Your task to perform on an android device: Search for the best rated book on Goodreads. Image 0: 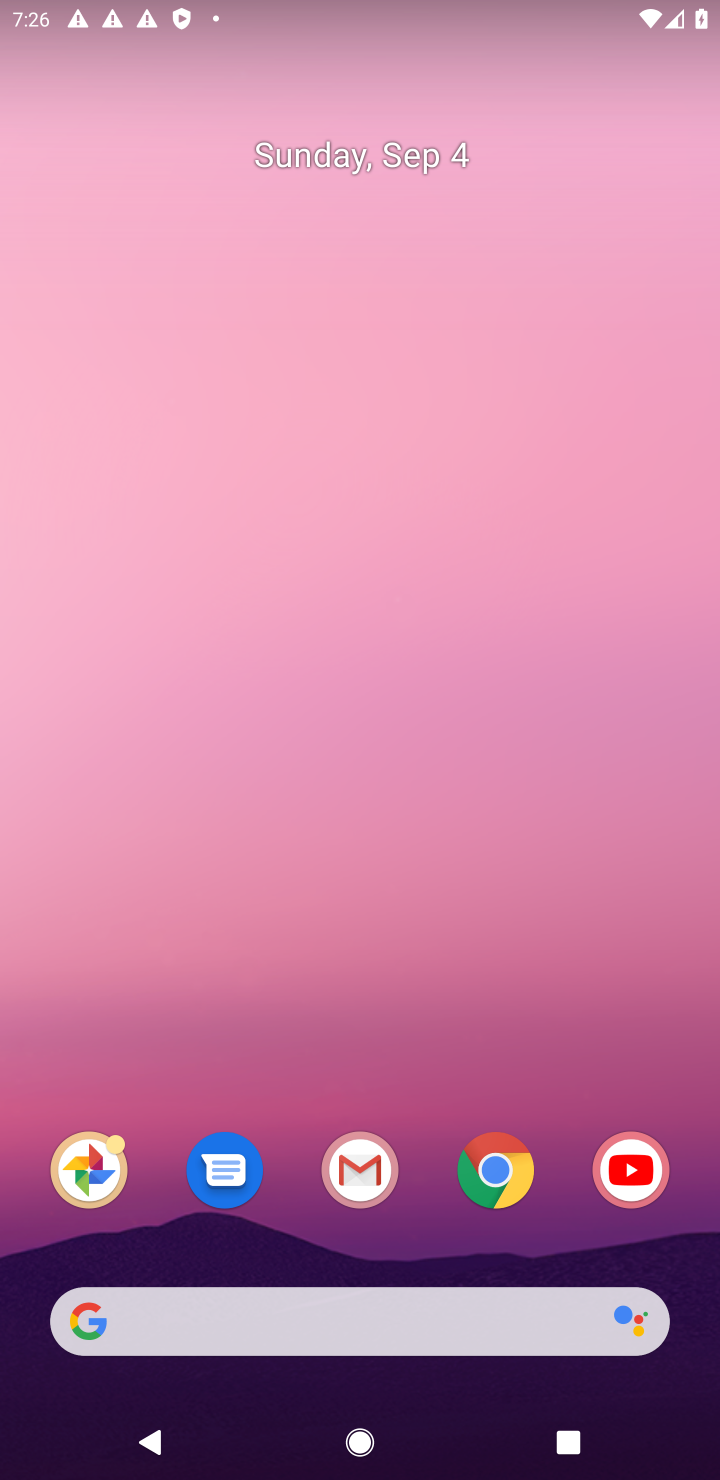
Step 0: drag from (377, 960) to (76, 51)
Your task to perform on an android device: Search for the best rated book on Goodreads. Image 1: 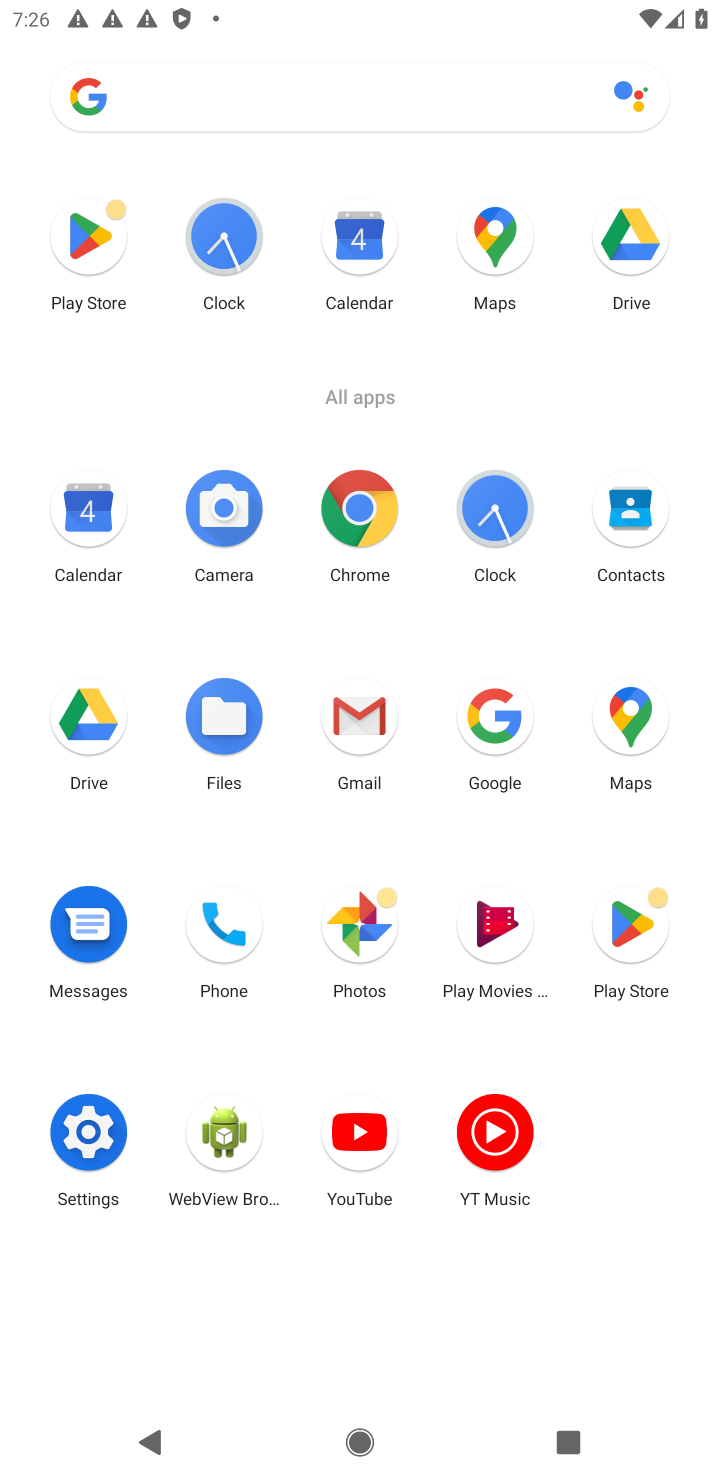
Step 1: click (350, 542)
Your task to perform on an android device: Search for the best rated book on Goodreads. Image 2: 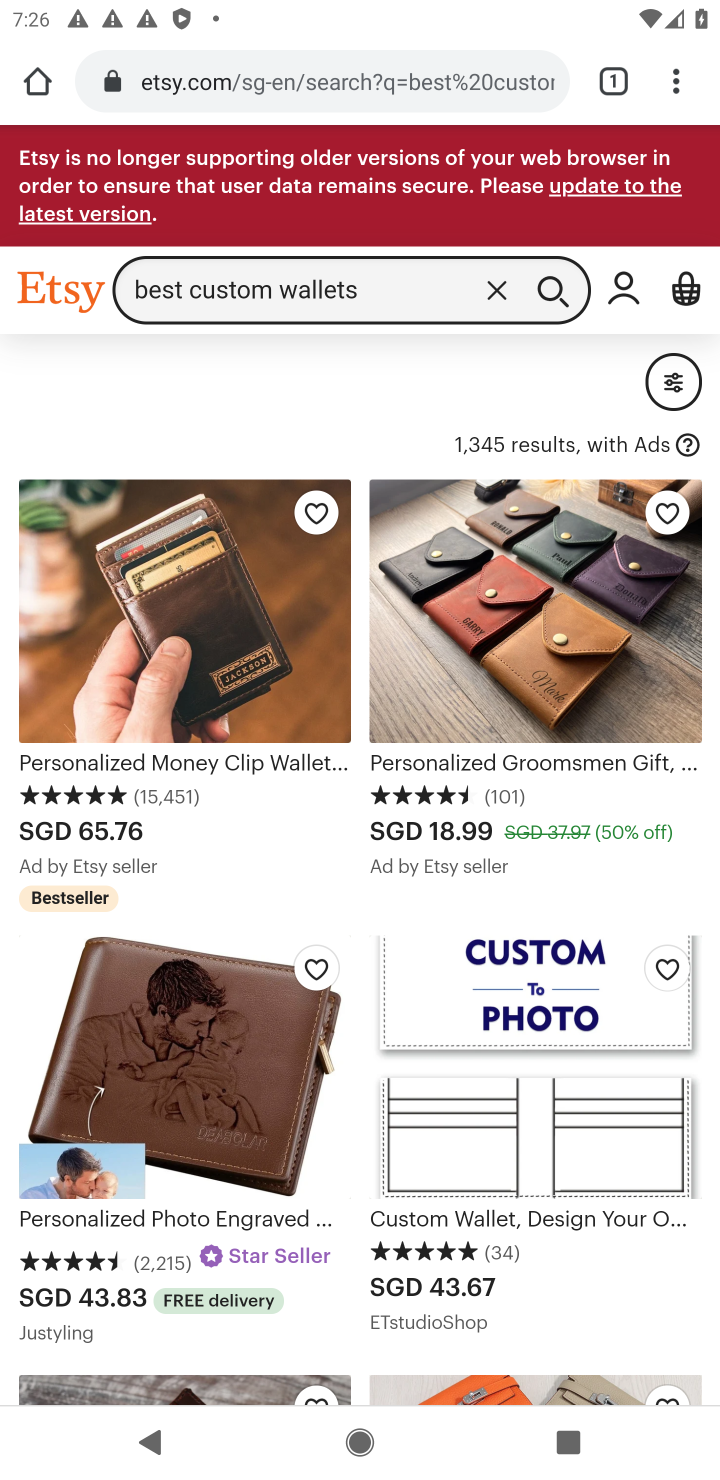
Step 2: click (317, 76)
Your task to perform on an android device: Search for the best rated book on Goodreads. Image 3: 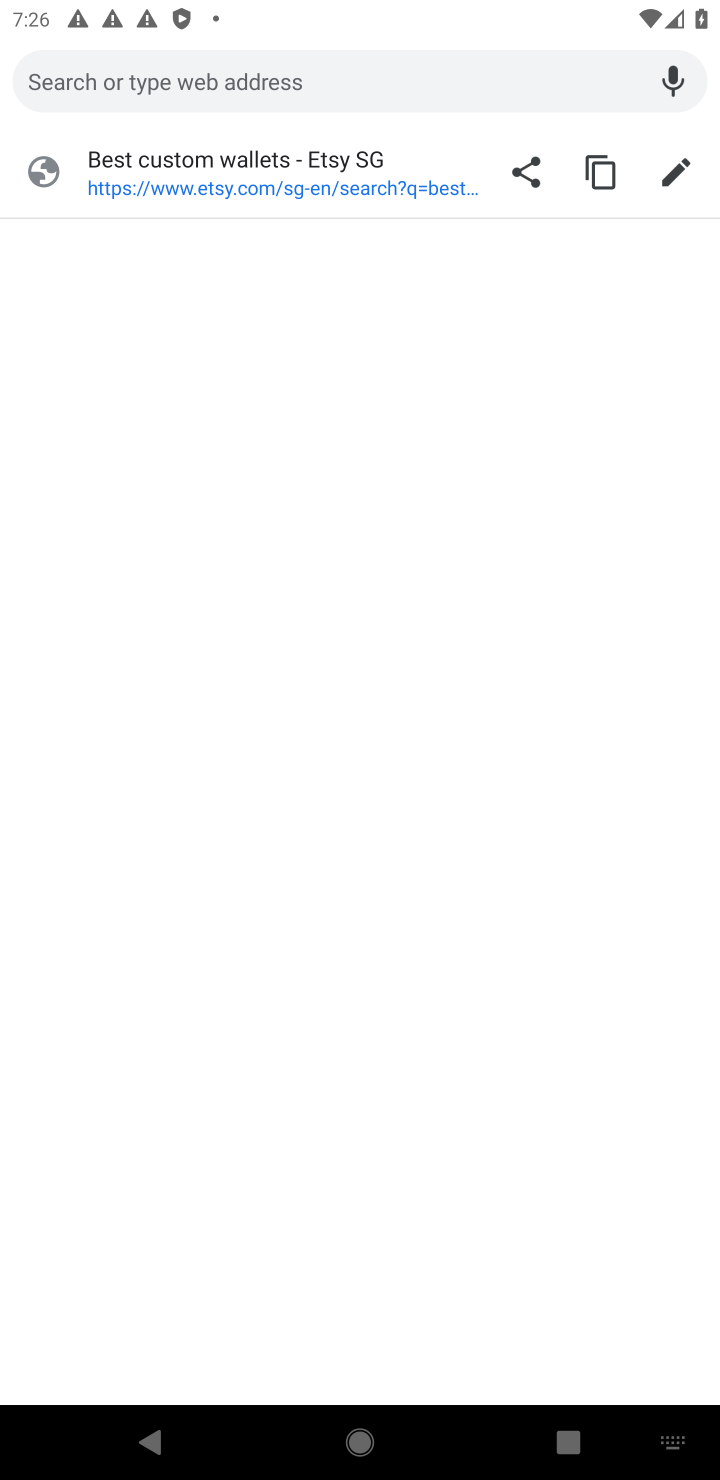
Step 3: type "goodreads"
Your task to perform on an android device: Search for the best rated book on Goodreads. Image 4: 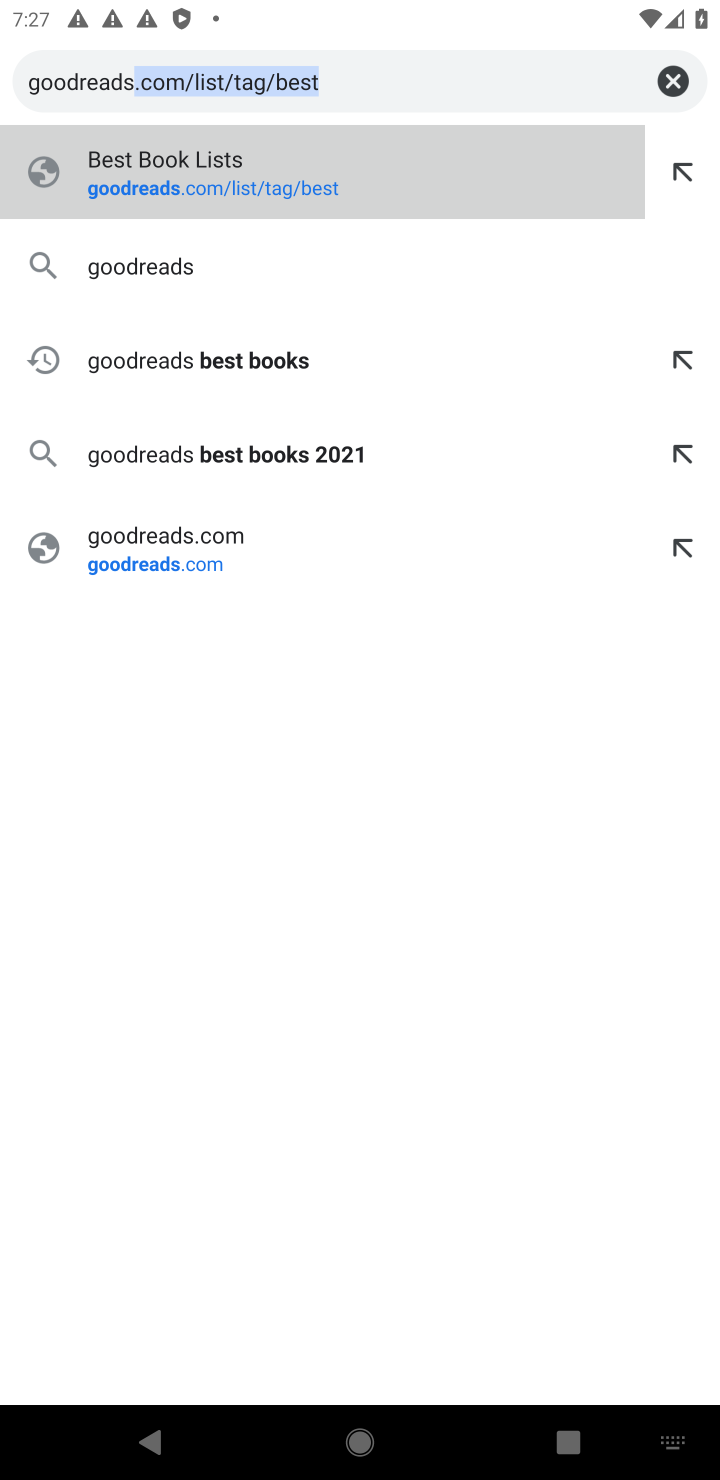
Step 4: click (189, 283)
Your task to perform on an android device: Search for the best rated book on Goodreads. Image 5: 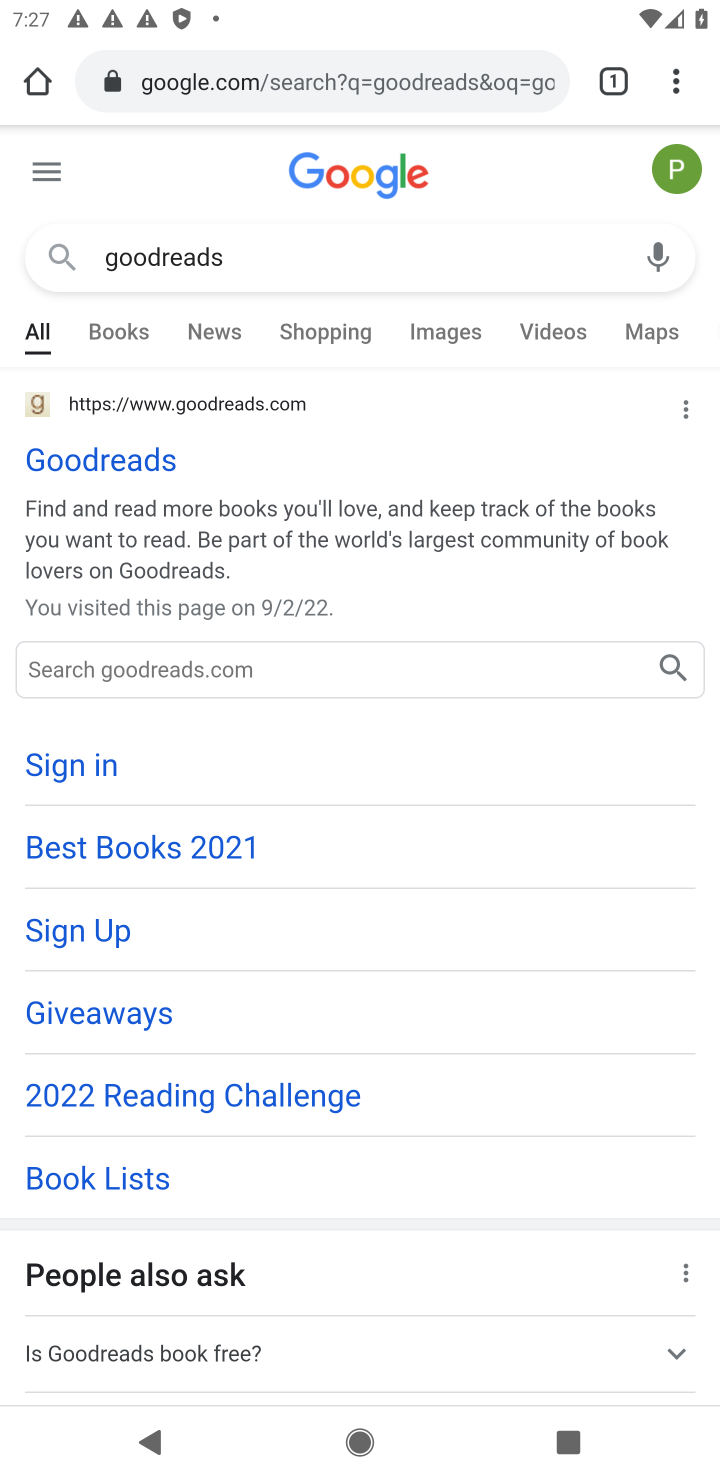
Step 5: click (131, 465)
Your task to perform on an android device: Search for the best rated book on Goodreads. Image 6: 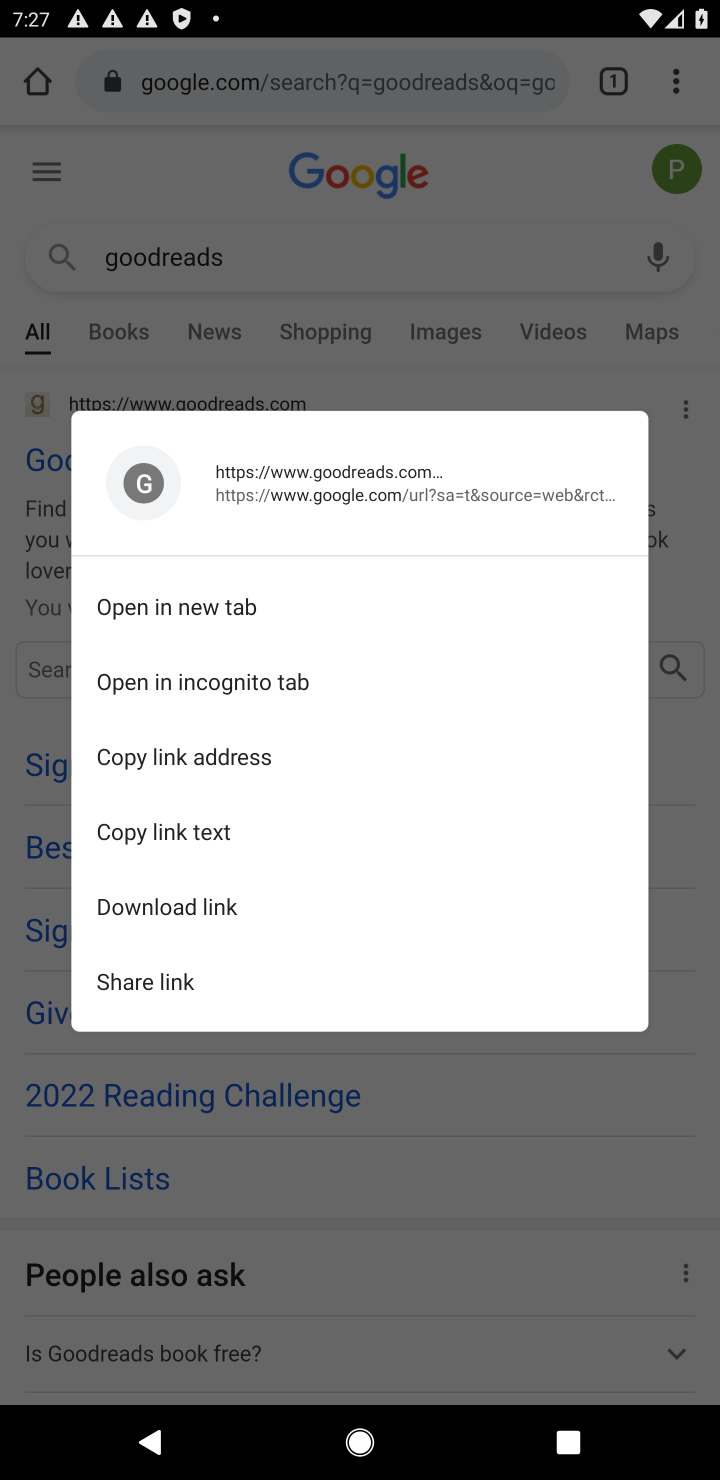
Step 6: click (51, 464)
Your task to perform on an android device: Search for the best rated book on Goodreads. Image 7: 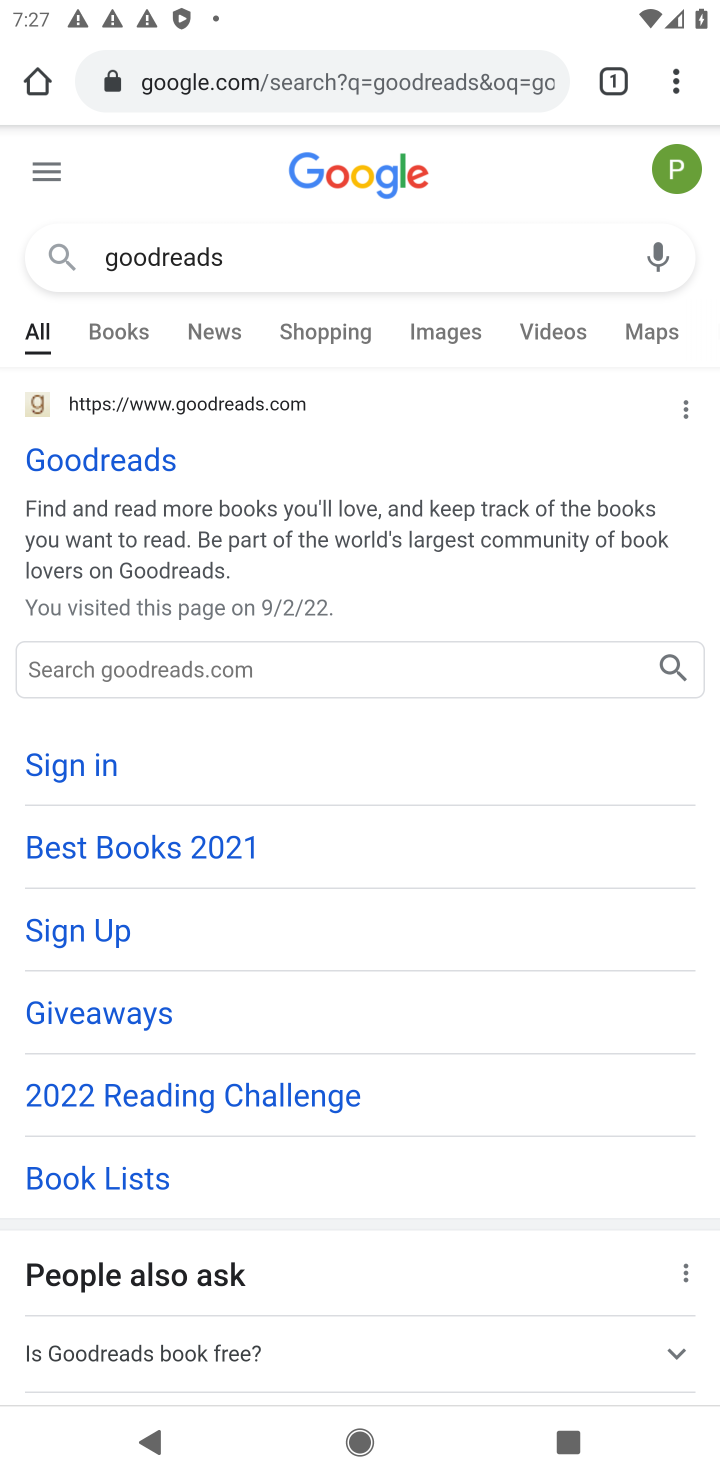
Step 7: click (51, 464)
Your task to perform on an android device: Search for the best rated book on Goodreads. Image 8: 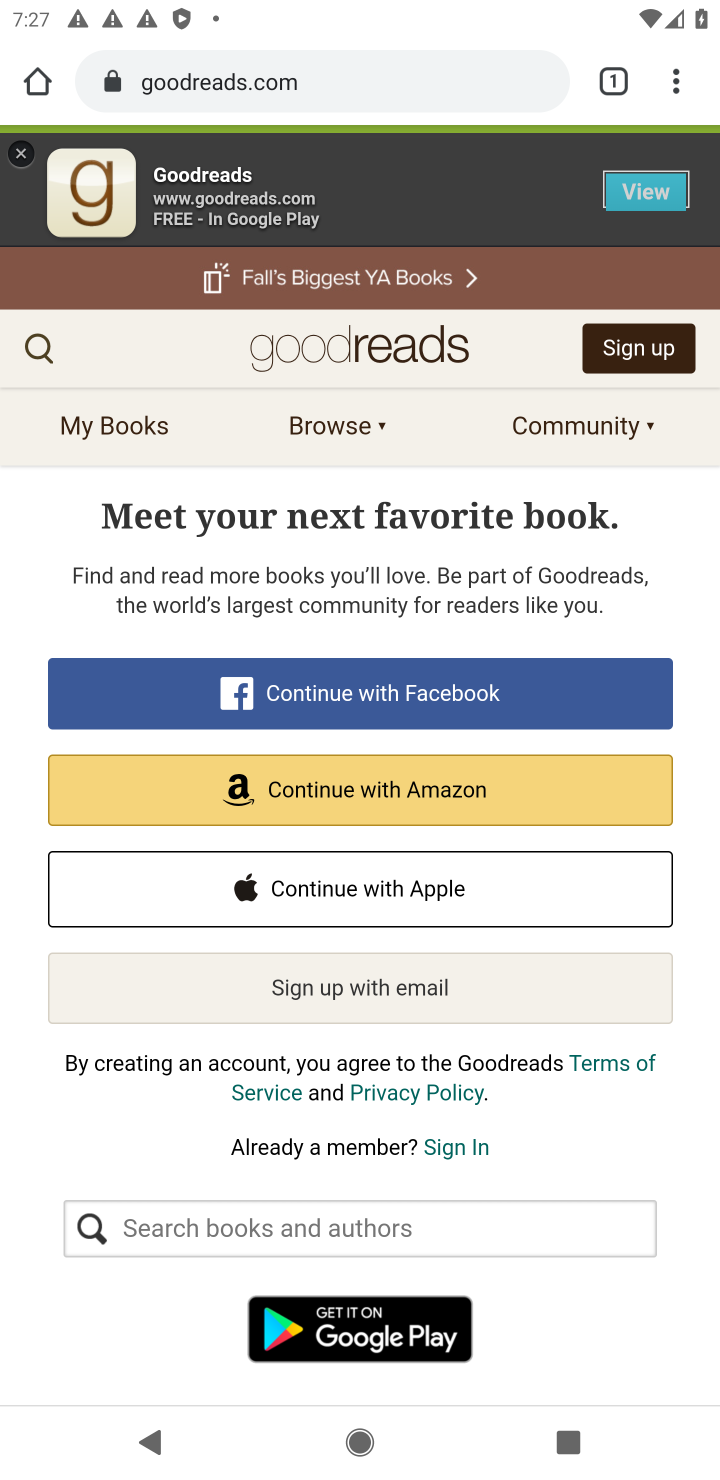
Step 8: click (34, 360)
Your task to perform on an android device: Search for the best rated book on Goodreads. Image 9: 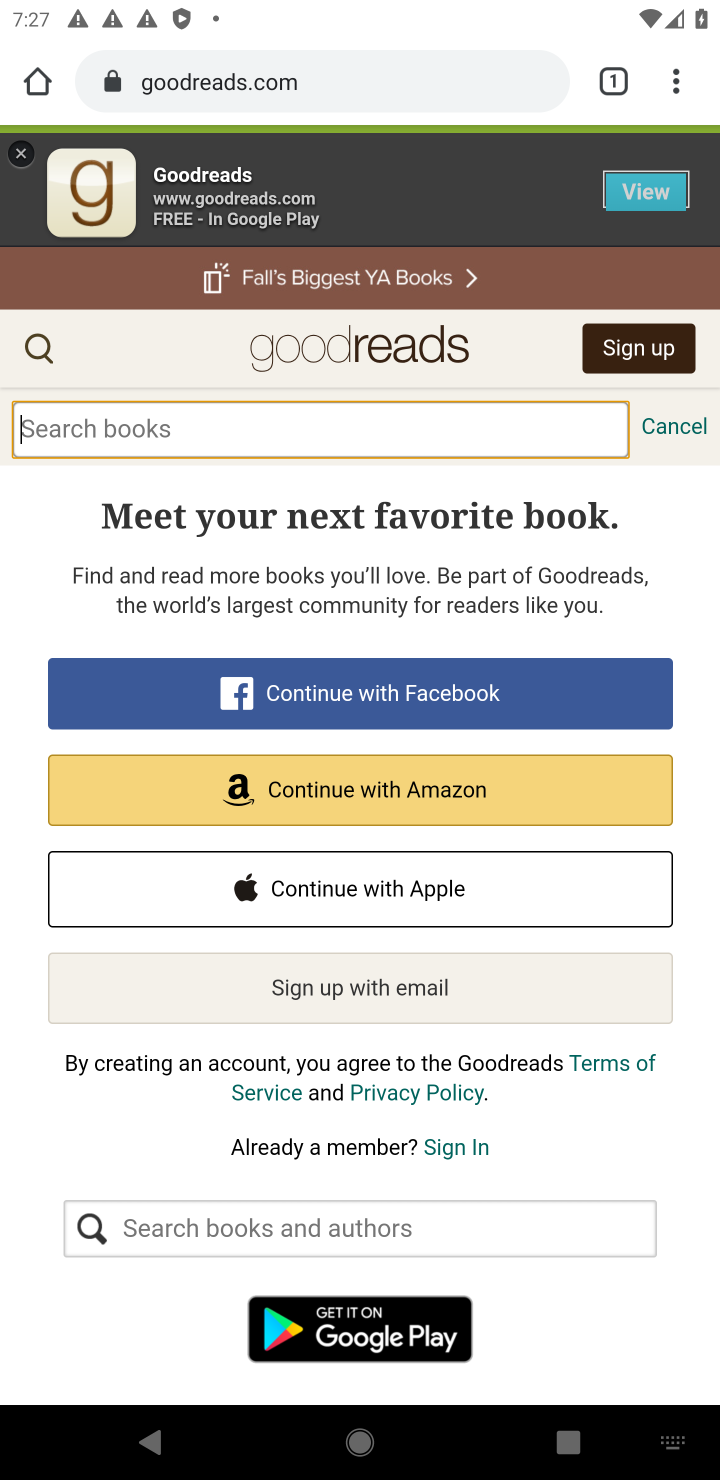
Step 9: drag from (592, 1349) to (529, 1478)
Your task to perform on an android device: Search for the best rated book on Goodreads. Image 10: 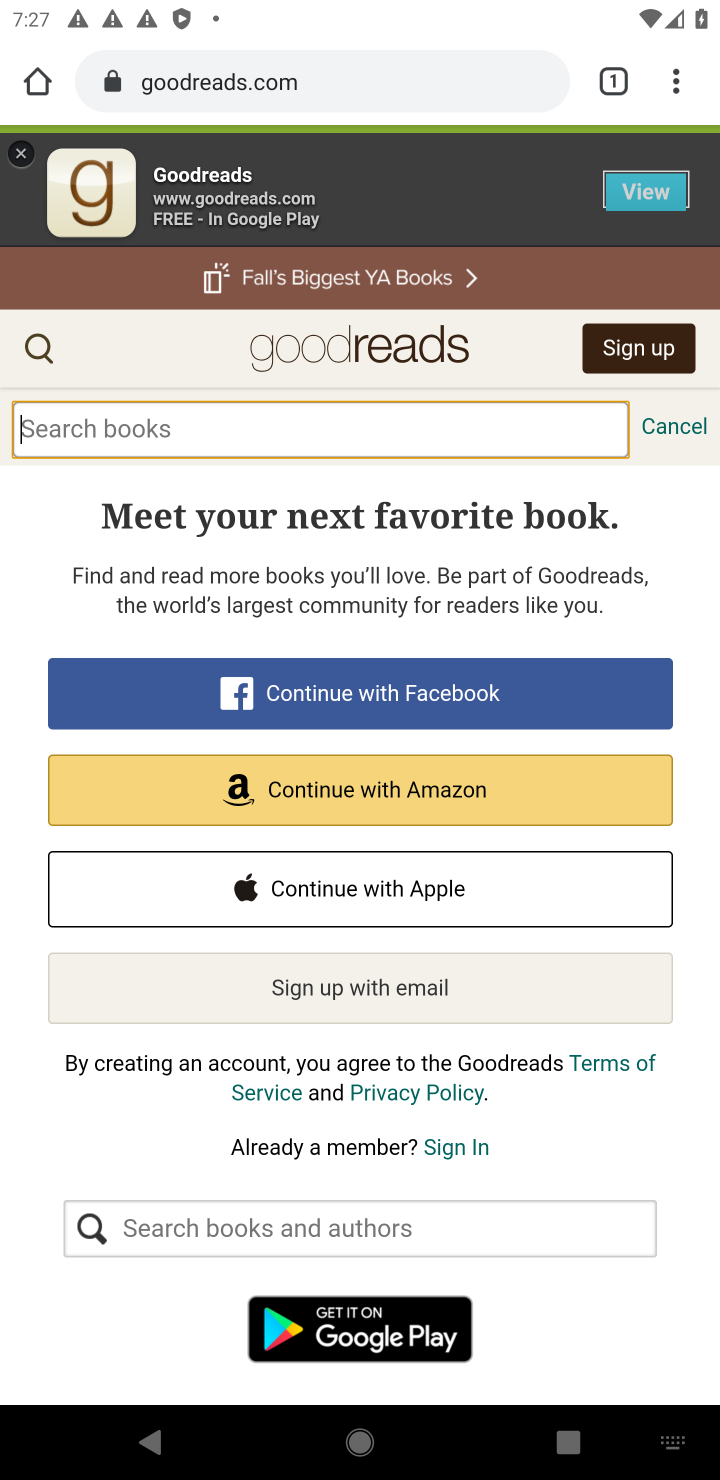
Step 10: type "the best rated book"
Your task to perform on an android device: Search for the best rated book on Goodreads. Image 11: 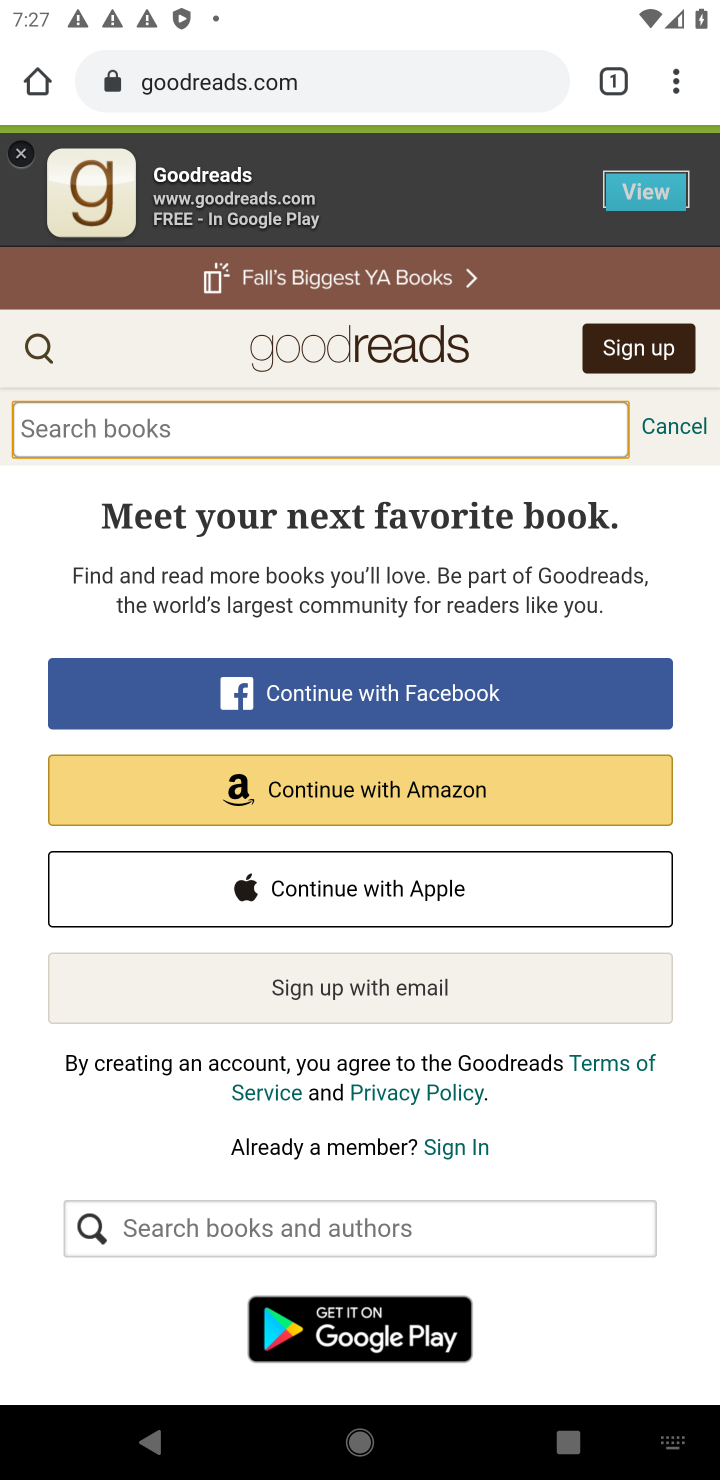
Step 11: drag from (529, 1478) to (320, 1418)
Your task to perform on an android device: Search for the best rated book on Goodreads. Image 12: 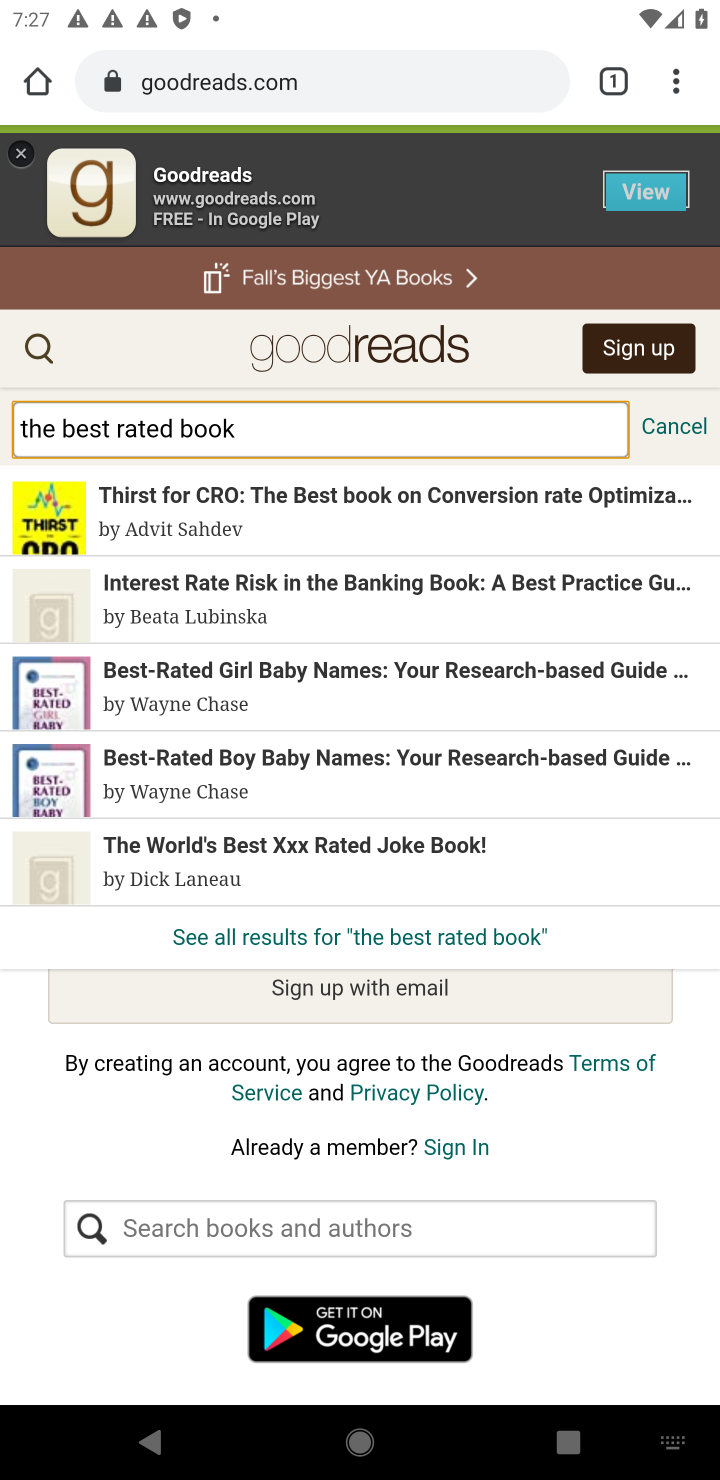
Step 12: click (364, 574)
Your task to perform on an android device: Search for the best rated book on Goodreads. Image 13: 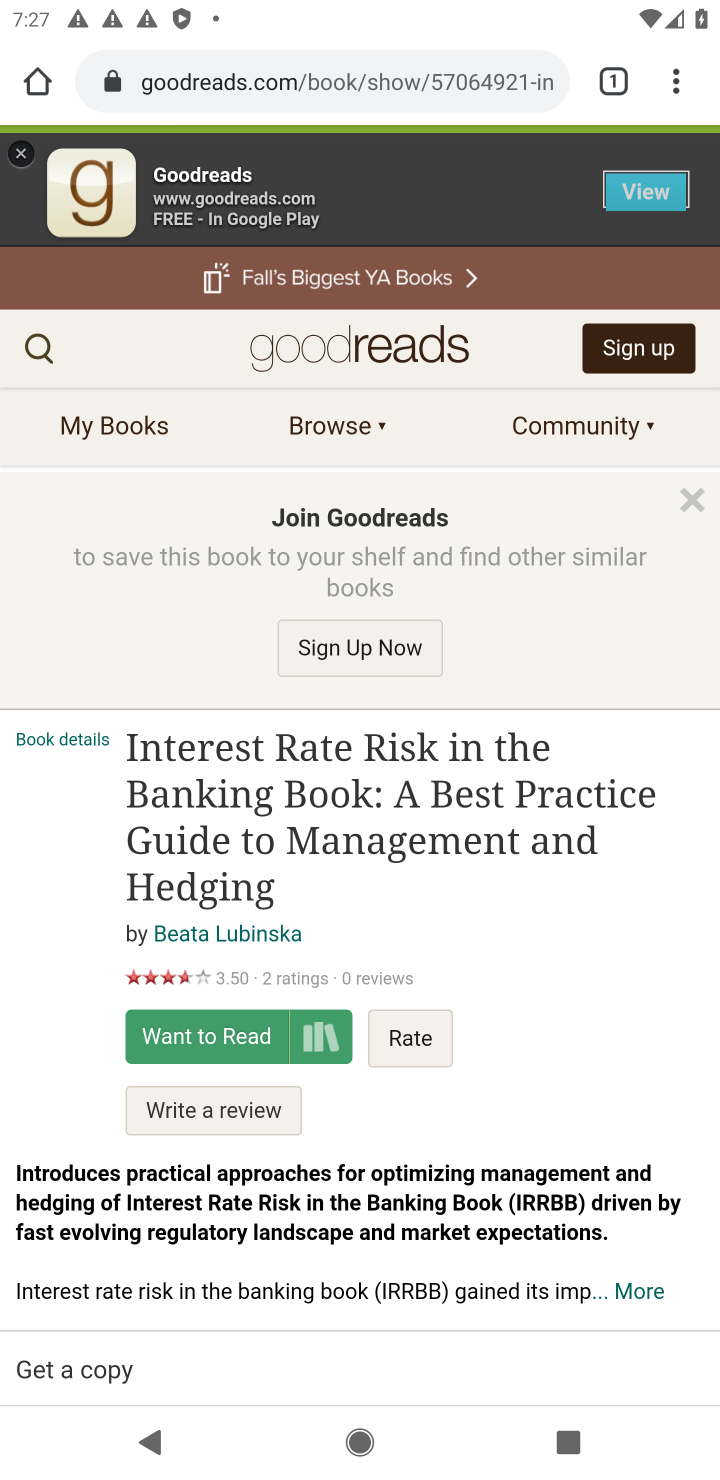
Step 13: task complete